Your task to perform on an android device: toggle data saver in the chrome app Image 0: 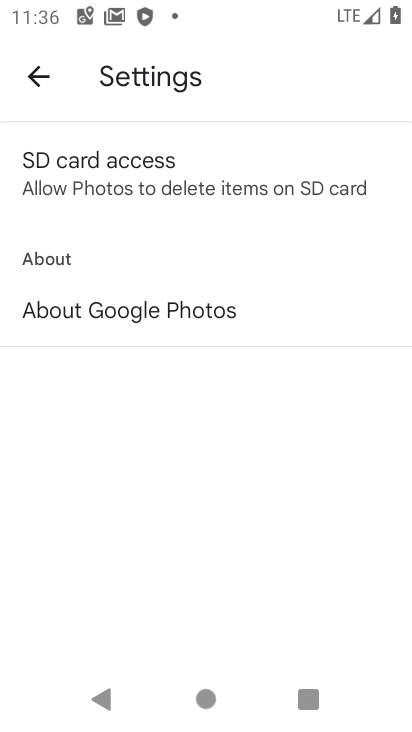
Step 0: press home button
Your task to perform on an android device: toggle data saver in the chrome app Image 1: 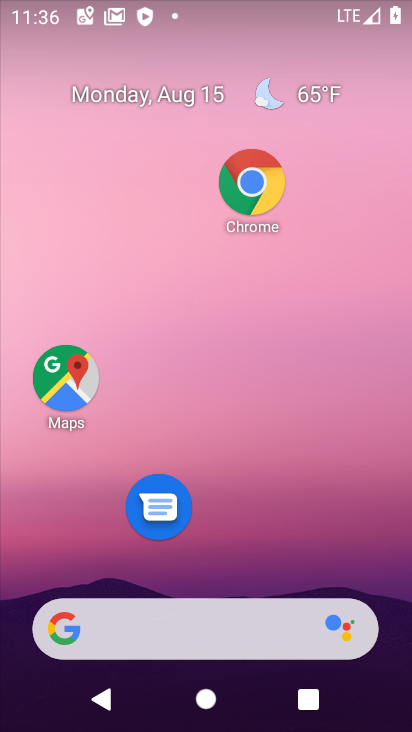
Step 1: drag from (244, 575) to (248, 240)
Your task to perform on an android device: toggle data saver in the chrome app Image 2: 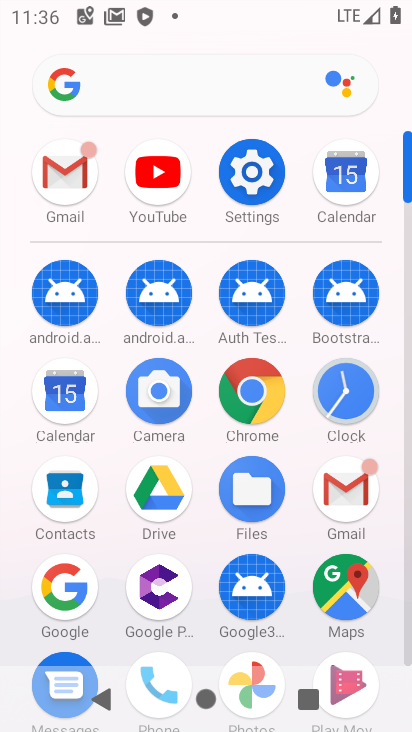
Step 2: click (243, 375)
Your task to perform on an android device: toggle data saver in the chrome app Image 3: 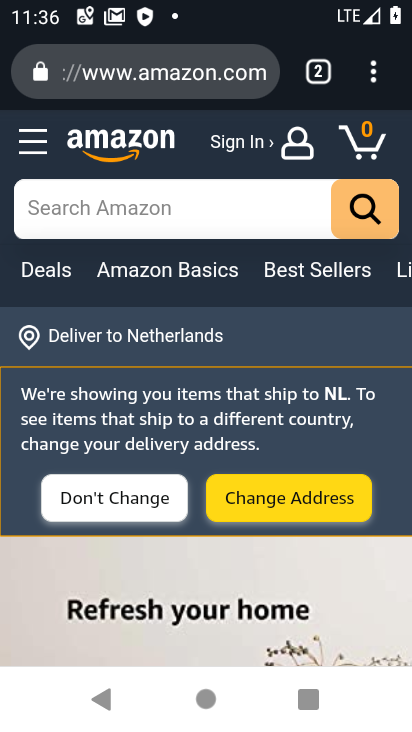
Step 3: click (386, 59)
Your task to perform on an android device: toggle data saver in the chrome app Image 4: 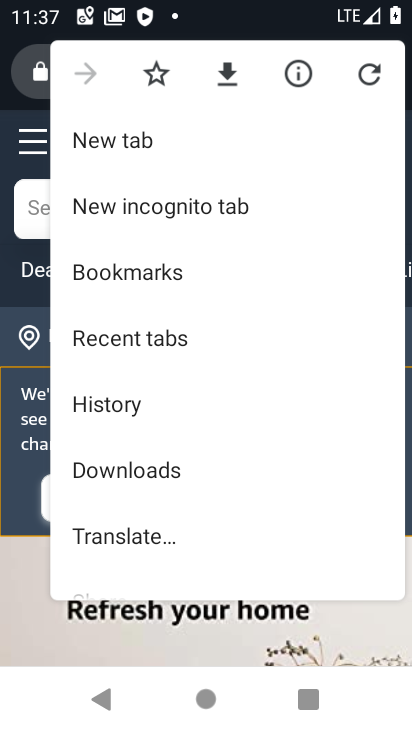
Step 4: task complete